Your task to perform on an android device: Do I have any events today? Image 0: 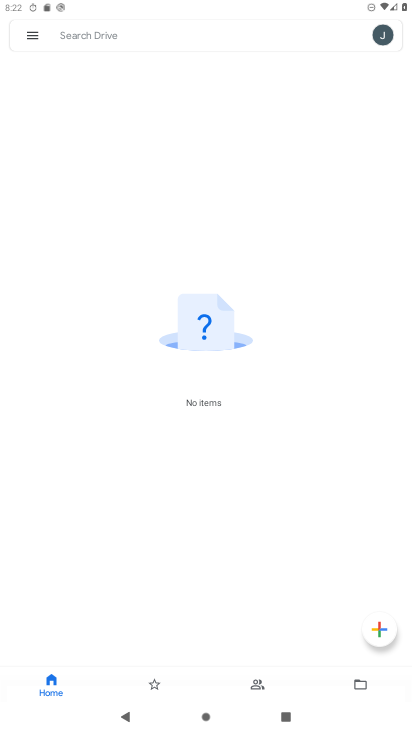
Step 0: press home button
Your task to perform on an android device: Do I have any events today? Image 1: 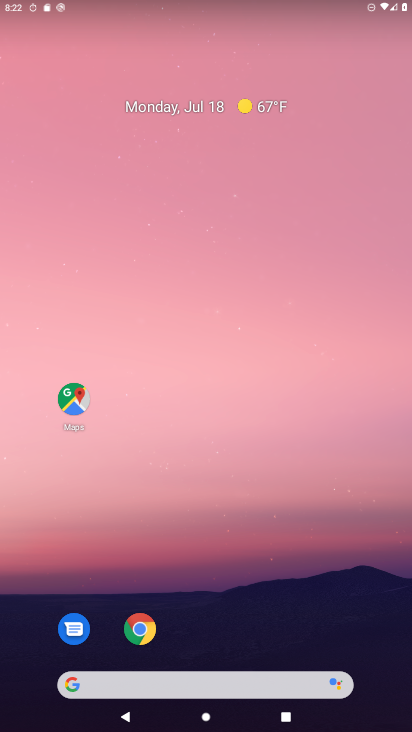
Step 1: drag from (219, 665) to (180, 144)
Your task to perform on an android device: Do I have any events today? Image 2: 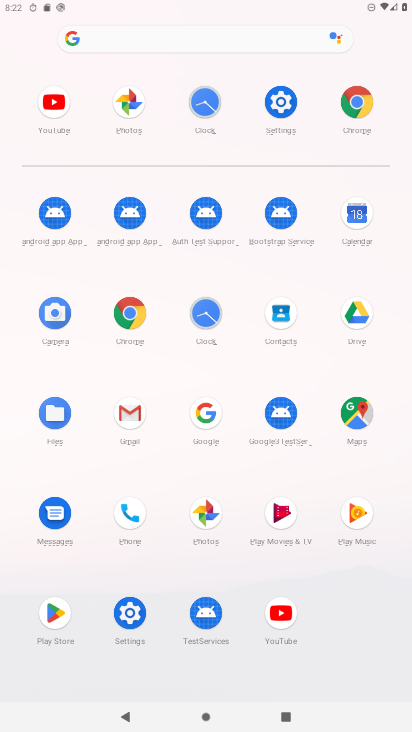
Step 2: click (354, 208)
Your task to perform on an android device: Do I have any events today? Image 3: 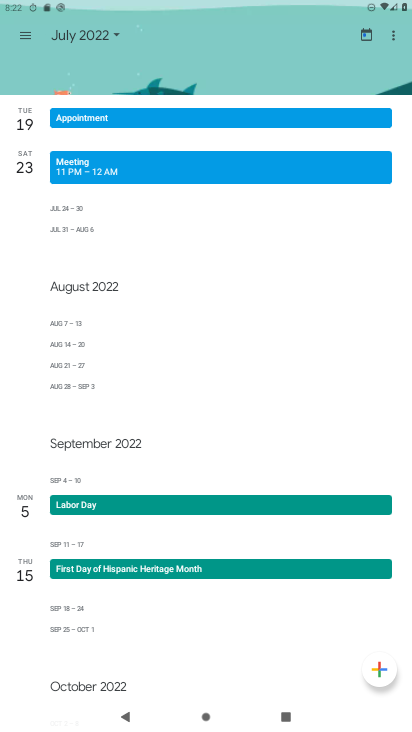
Step 3: click (368, 32)
Your task to perform on an android device: Do I have any events today? Image 4: 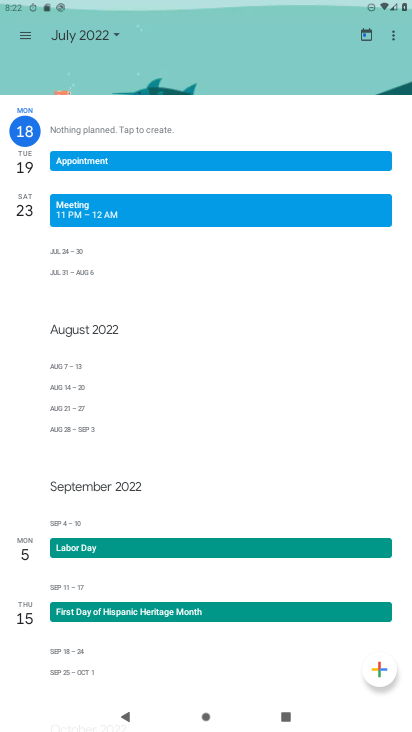
Step 4: click (23, 140)
Your task to perform on an android device: Do I have any events today? Image 5: 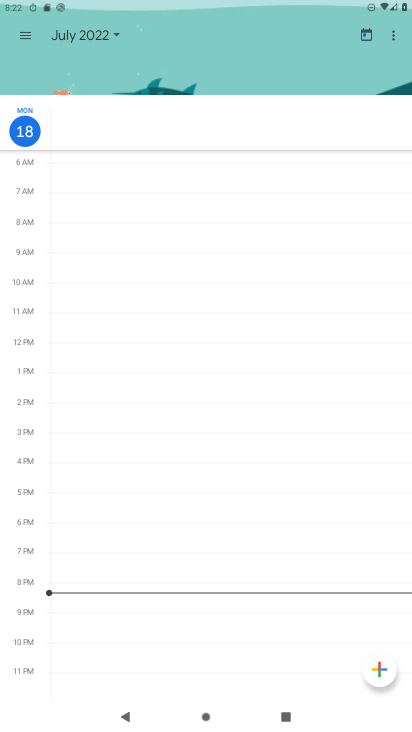
Step 5: task complete